Your task to perform on an android device: Open Chrome and go to settings Image 0: 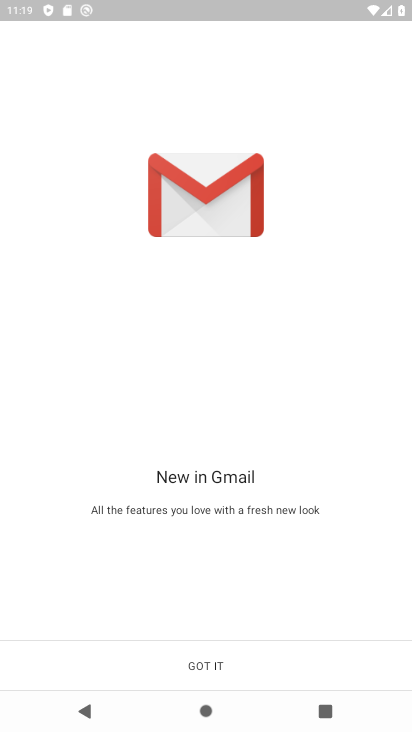
Step 0: press back button
Your task to perform on an android device: Open Chrome and go to settings Image 1: 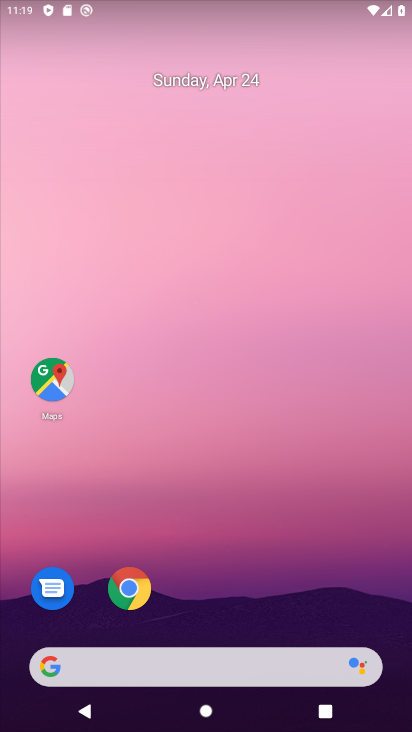
Step 1: click (132, 605)
Your task to perform on an android device: Open Chrome and go to settings Image 2: 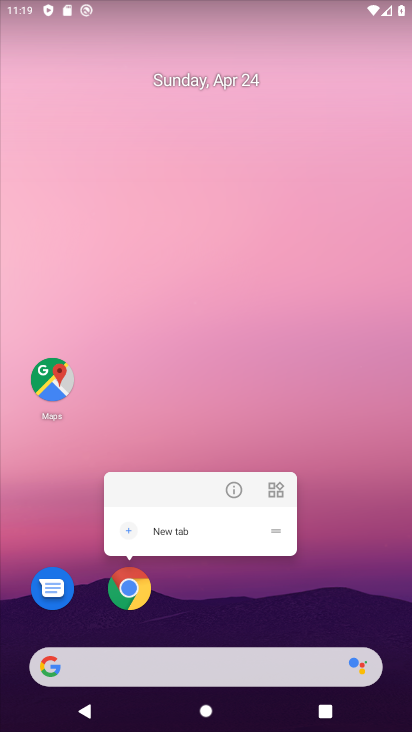
Step 2: click (140, 587)
Your task to perform on an android device: Open Chrome and go to settings Image 3: 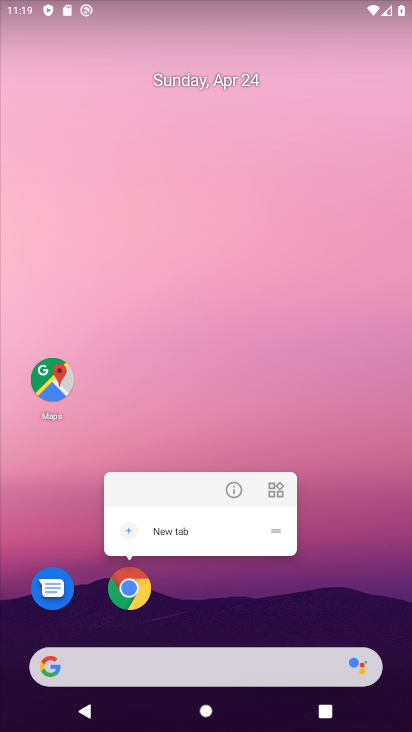
Step 3: click (126, 587)
Your task to perform on an android device: Open Chrome and go to settings Image 4: 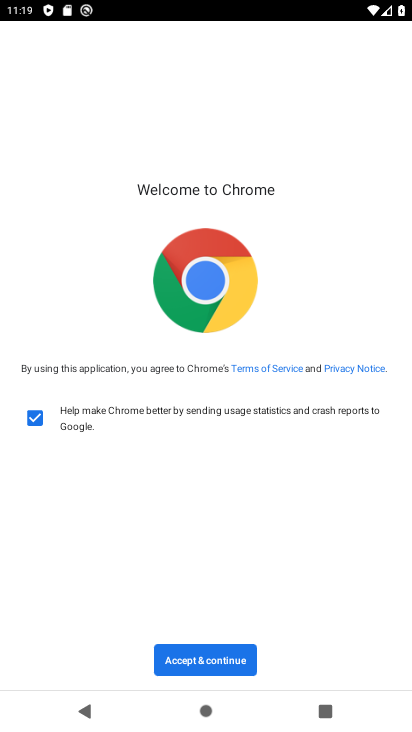
Step 4: click (192, 659)
Your task to perform on an android device: Open Chrome and go to settings Image 5: 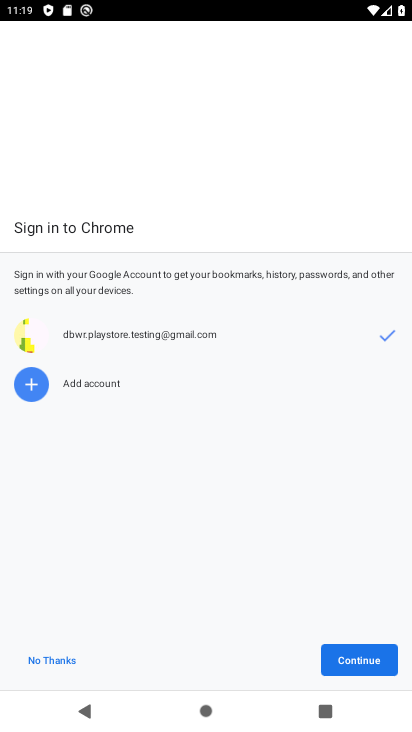
Step 5: click (360, 665)
Your task to perform on an android device: Open Chrome and go to settings Image 6: 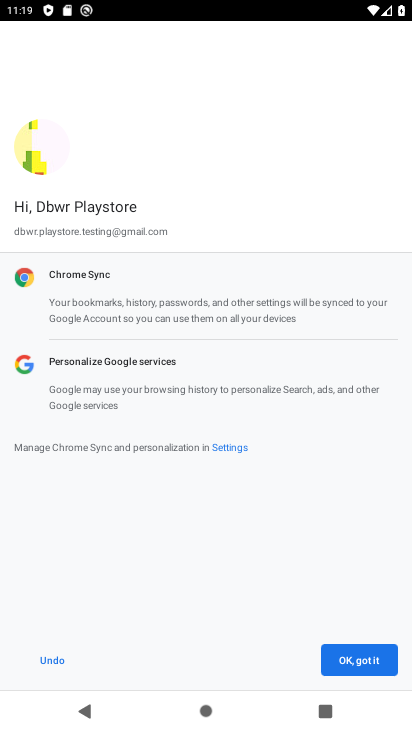
Step 6: click (357, 664)
Your task to perform on an android device: Open Chrome and go to settings Image 7: 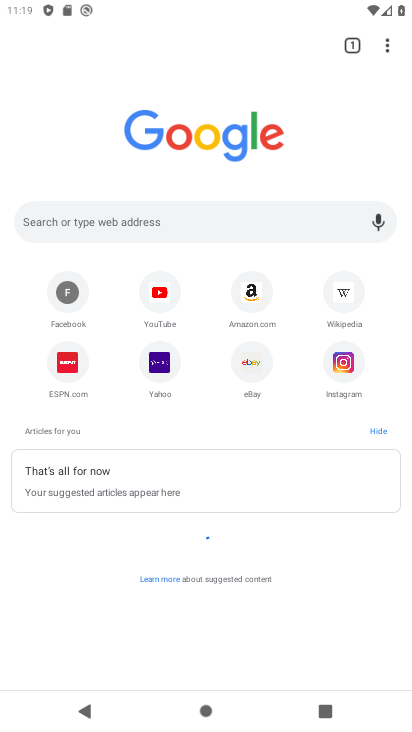
Step 7: task complete